Your task to perform on an android device: Open Youtube and go to the subscriptions tab Image 0: 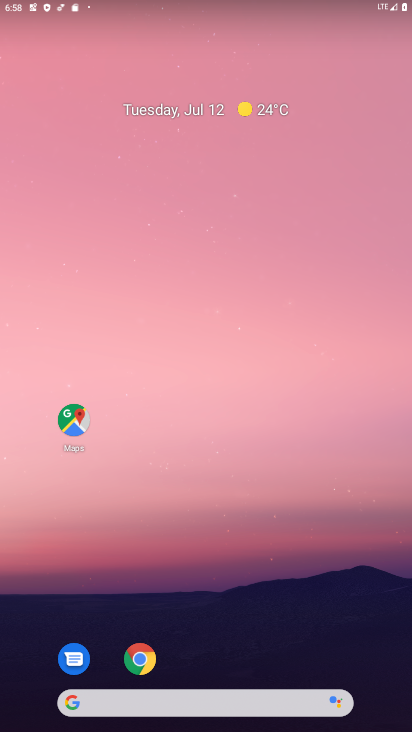
Step 0: drag from (321, 617) to (235, 22)
Your task to perform on an android device: Open Youtube and go to the subscriptions tab Image 1: 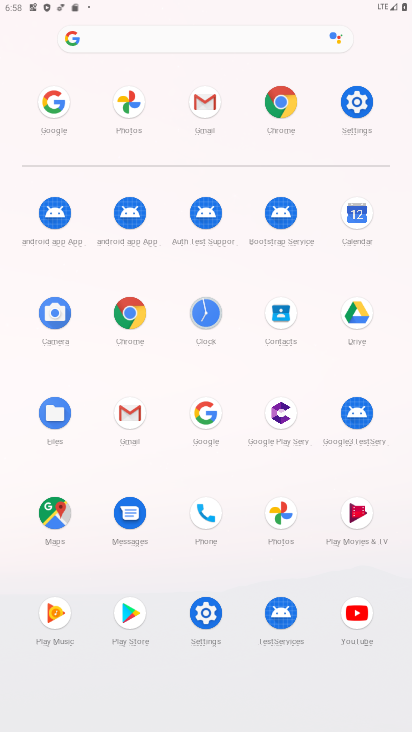
Step 1: click (363, 620)
Your task to perform on an android device: Open Youtube and go to the subscriptions tab Image 2: 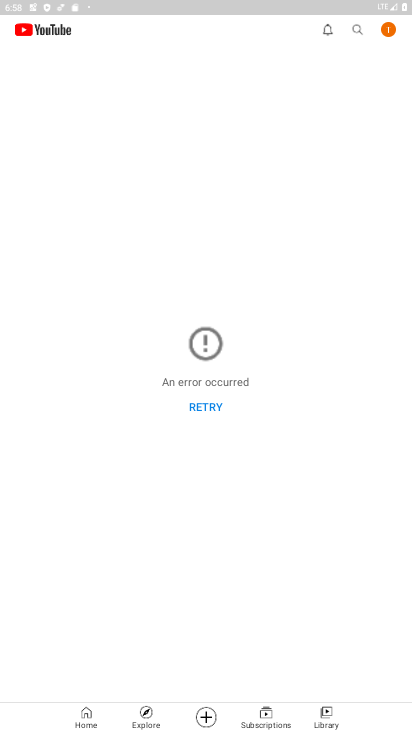
Step 2: click (267, 718)
Your task to perform on an android device: Open Youtube and go to the subscriptions tab Image 3: 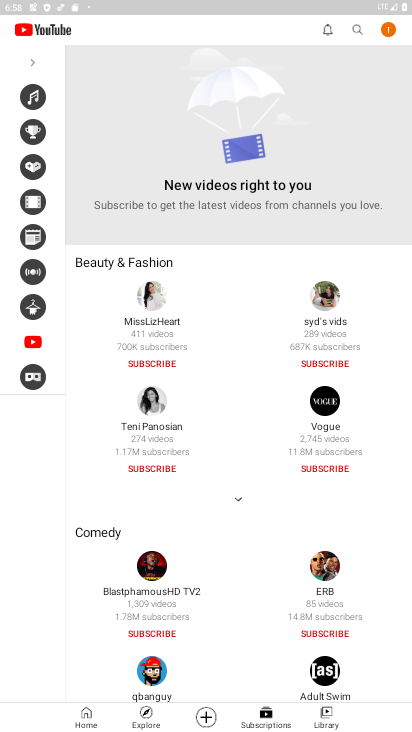
Step 3: task complete